Your task to perform on an android device: find photos in the google photos app Image 0: 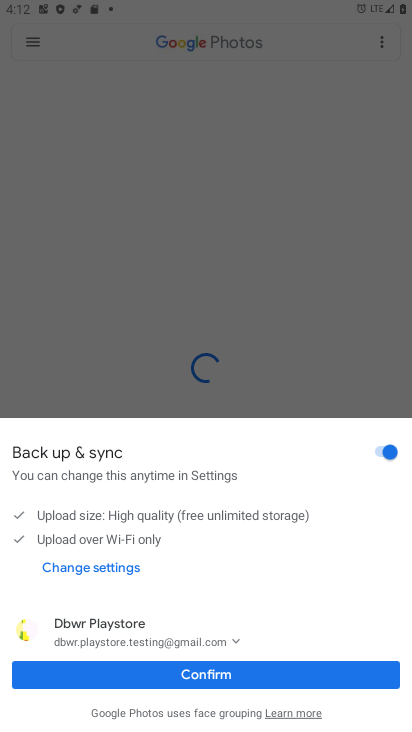
Step 0: press home button
Your task to perform on an android device: find photos in the google photos app Image 1: 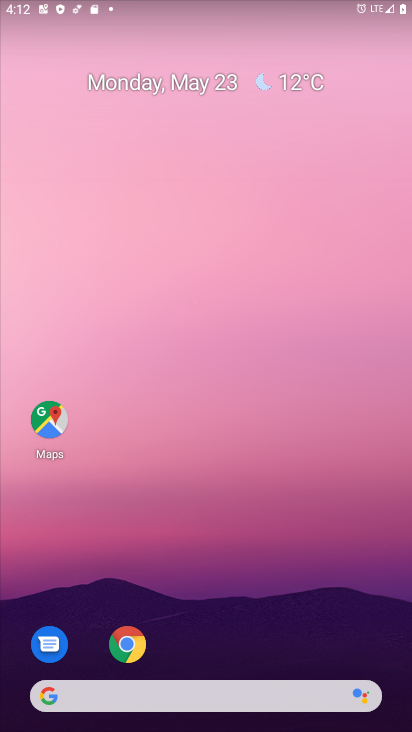
Step 1: drag from (232, 668) to (86, 97)
Your task to perform on an android device: find photos in the google photos app Image 2: 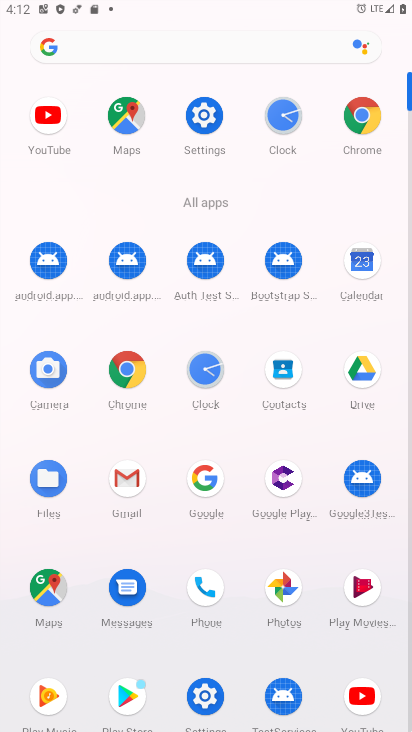
Step 2: click (286, 590)
Your task to perform on an android device: find photos in the google photos app Image 3: 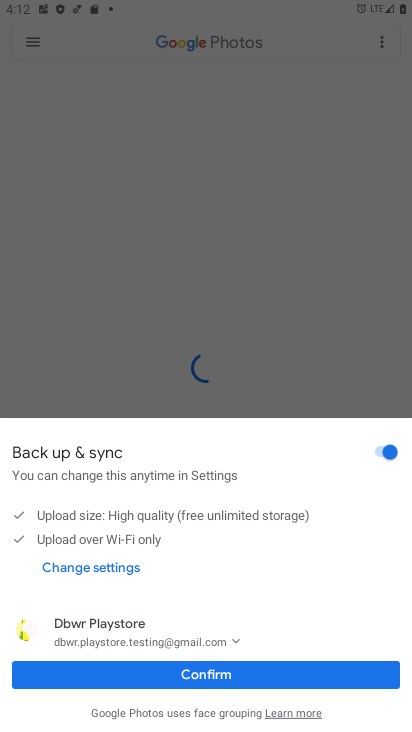
Step 3: click (269, 677)
Your task to perform on an android device: find photos in the google photos app Image 4: 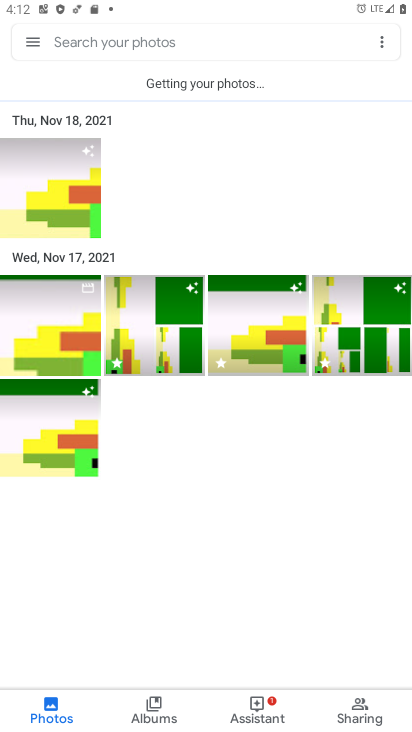
Step 4: task complete